Your task to perform on an android device: Go to eBay Image 0: 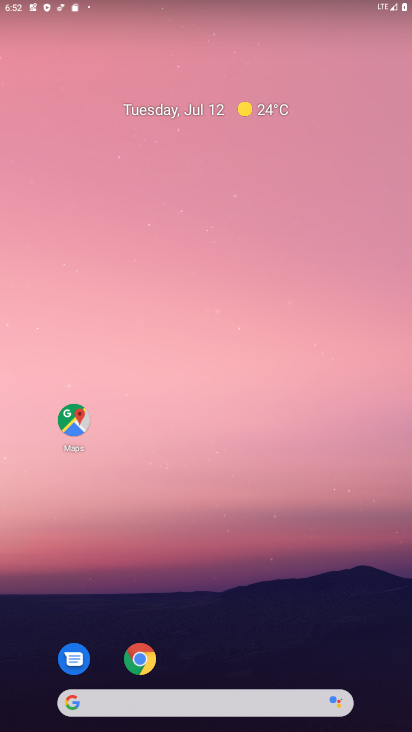
Step 0: drag from (360, 560) to (229, 31)
Your task to perform on an android device: Go to eBay Image 1: 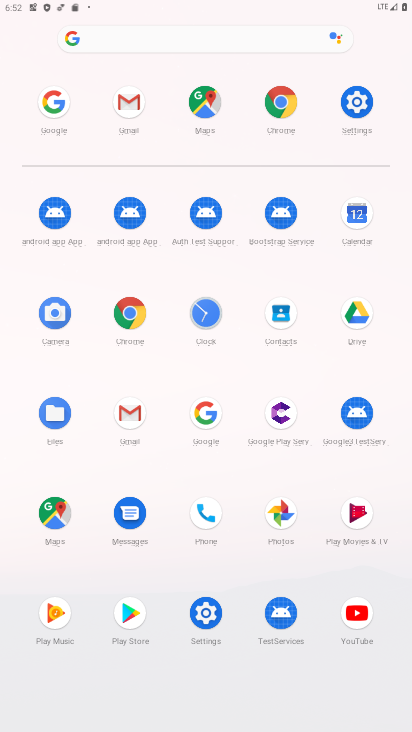
Step 1: click (201, 414)
Your task to perform on an android device: Go to eBay Image 2: 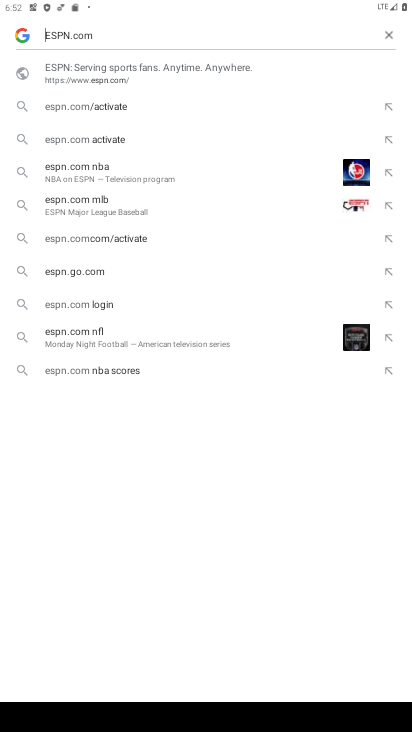
Step 2: click (388, 34)
Your task to perform on an android device: Go to eBay Image 3: 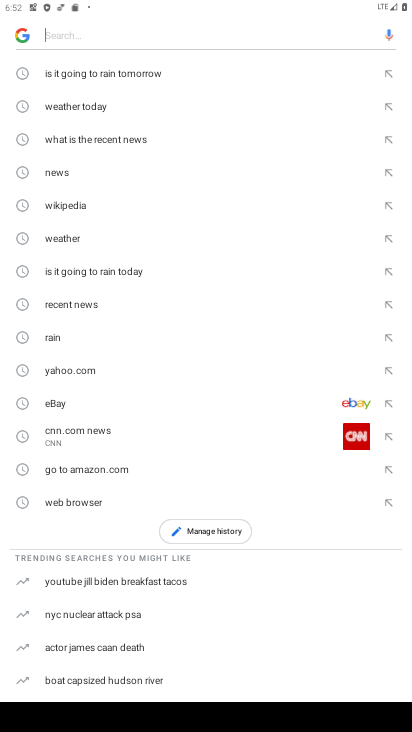
Step 3: click (47, 407)
Your task to perform on an android device: Go to eBay Image 4: 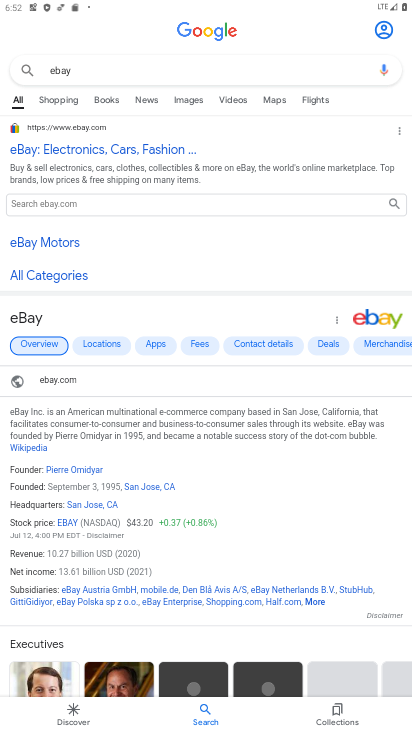
Step 4: task complete